Your task to perform on an android device: Open Google Maps and go to "Timeline" Image 0: 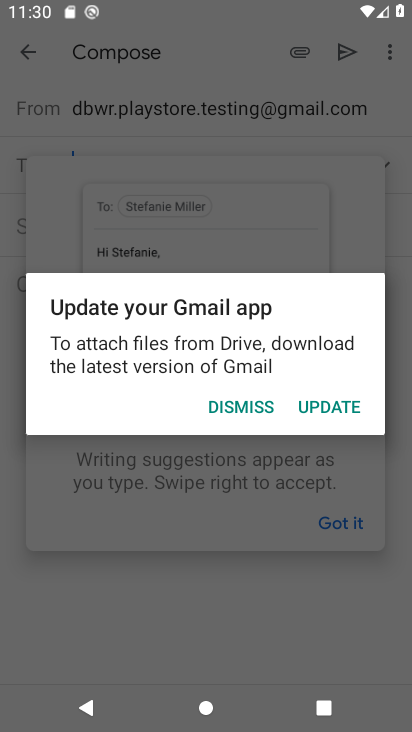
Step 0: press back button
Your task to perform on an android device: Open Google Maps and go to "Timeline" Image 1: 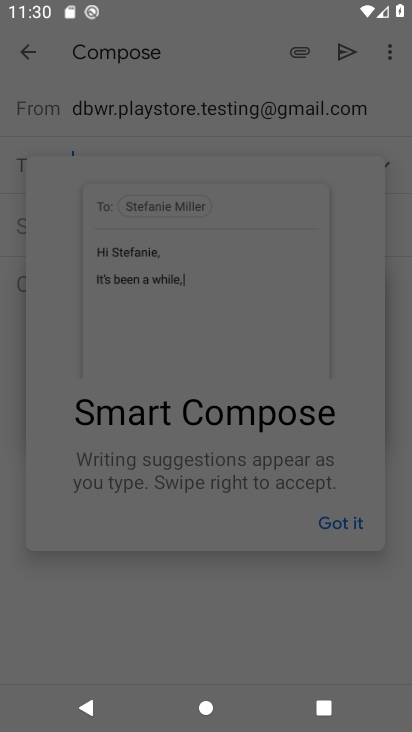
Step 1: press home button
Your task to perform on an android device: Open Google Maps and go to "Timeline" Image 2: 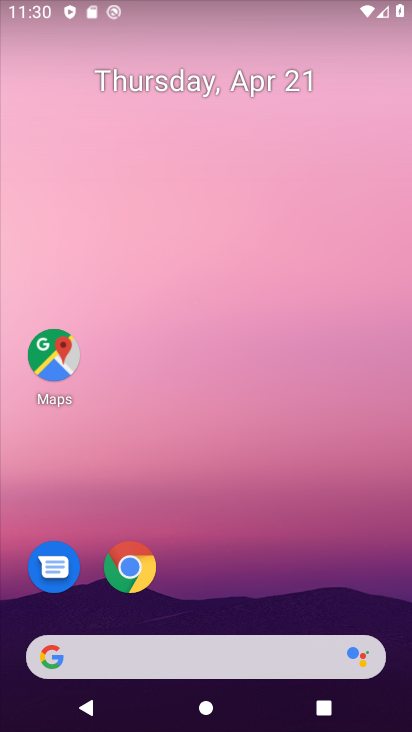
Step 2: drag from (164, 145) to (172, 1)
Your task to perform on an android device: Open Google Maps and go to "Timeline" Image 3: 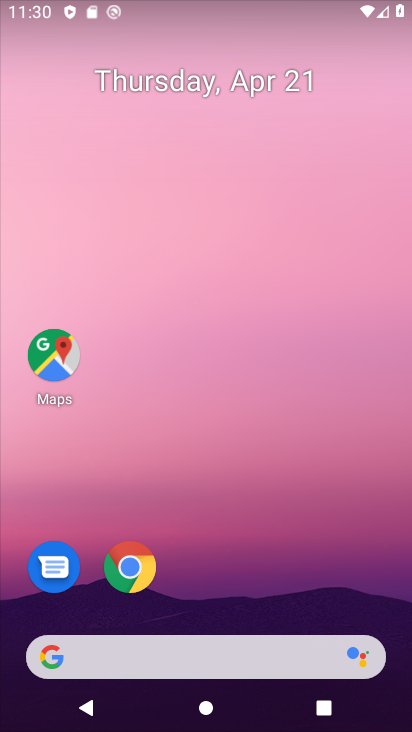
Step 3: drag from (180, 495) to (254, 174)
Your task to perform on an android device: Open Google Maps and go to "Timeline" Image 4: 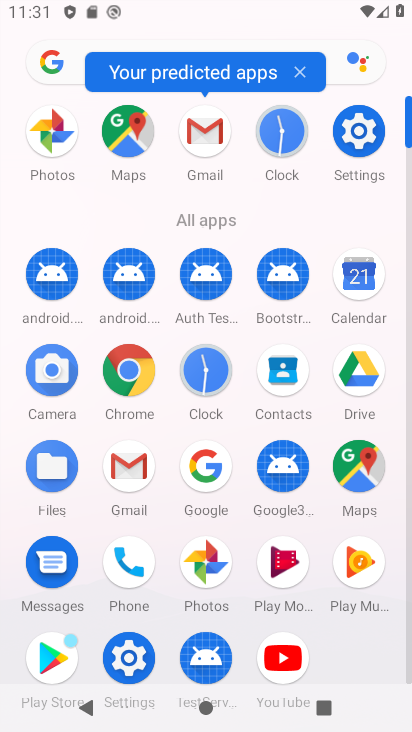
Step 4: click (363, 471)
Your task to perform on an android device: Open Google Maps and go to "Timeline" Image 5: 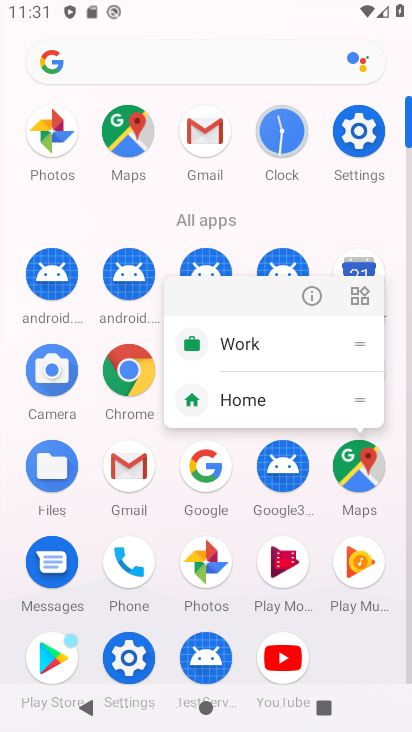
Step 5: click (315, 299)
Your task to perform on an android device: Open Google Maps and go to "Timeline" Image 6: 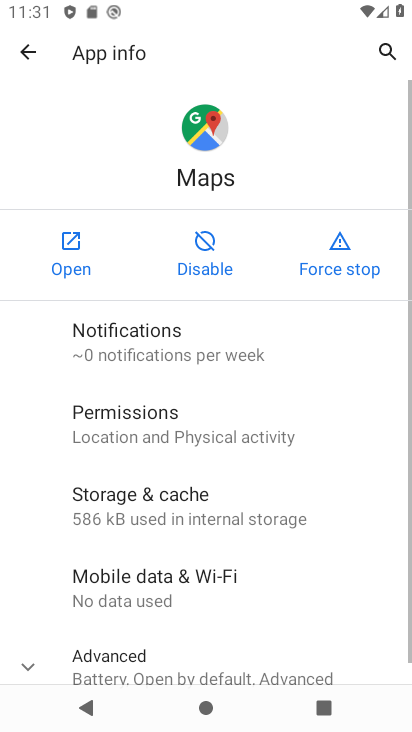
Step 6: click (63, 257)
Your task to perform on an android device: Open Google Maps and go to "Timeline" Image 7: 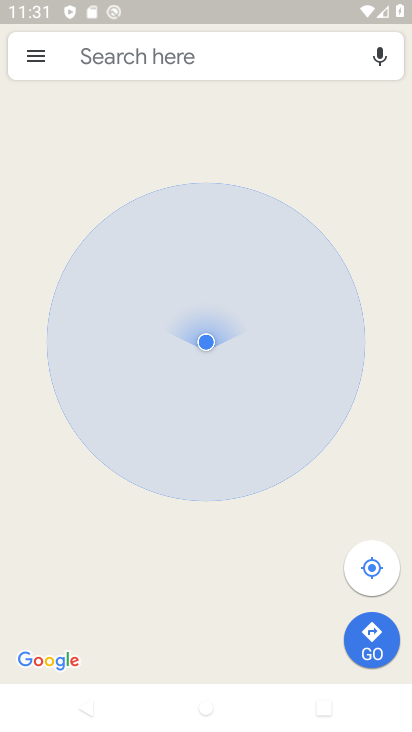
Step 7: click (41, 53)
Your task to perform on an android device: Open Google Maps and go to "Timeline" Image 8: 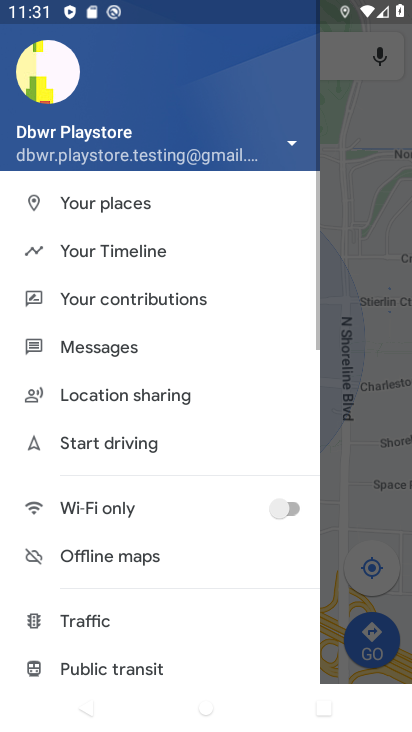
Step 8: click (112, 251)
Your task to perform on an android device: Open Google Maps and go to "Timeline" Image 9: 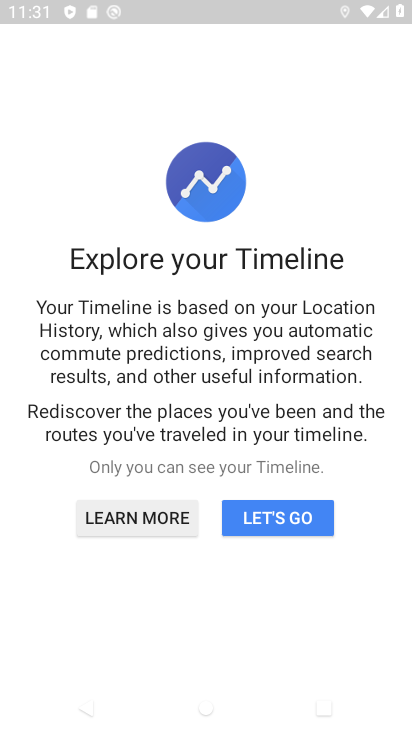
Step 9: task complete